Your task to perform on an android device: find photos in the google photos app Image 0: 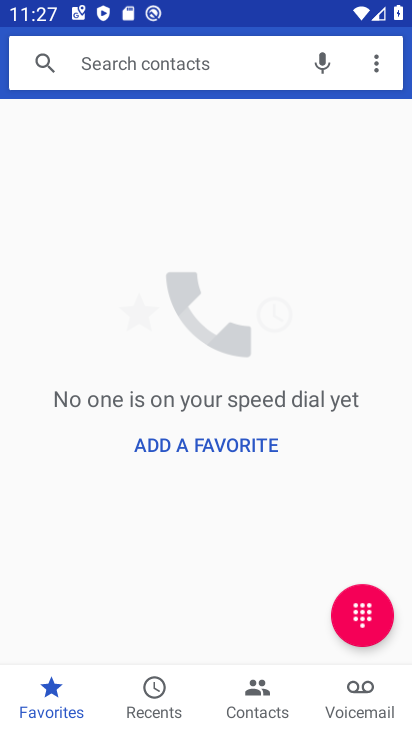
Step 0: press home button
Your task to perform on an android device: find photos in the google photos app Image 1: 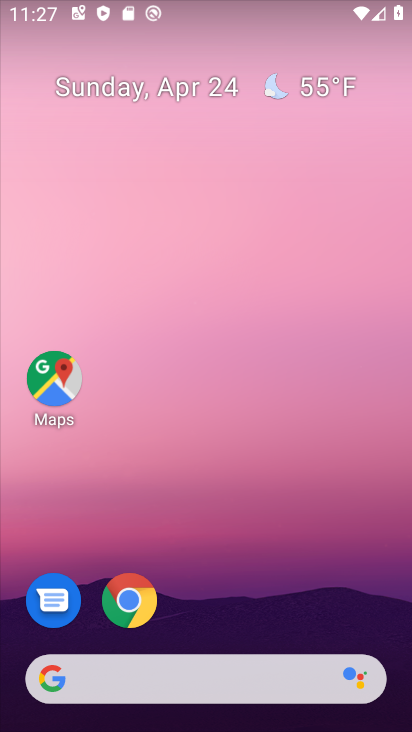
Step 1: drag from (184, 637) to (167, 205)
Your task to perform on an android device: find photos in the google photos app Image 2: 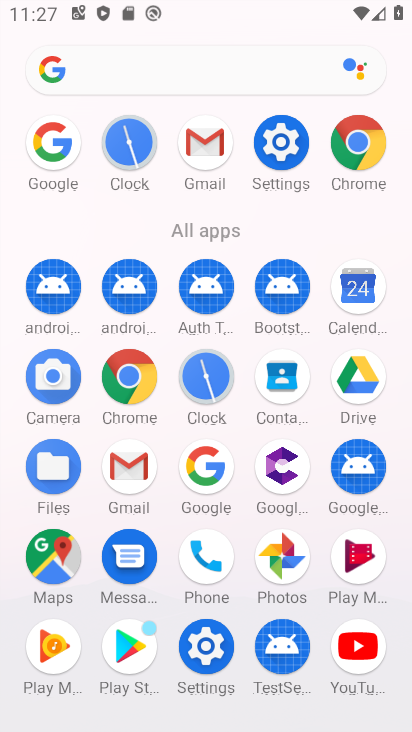
Step 2: click (276, 549)
Your task to perform on an android device: find photos in the google photos app Image 3: 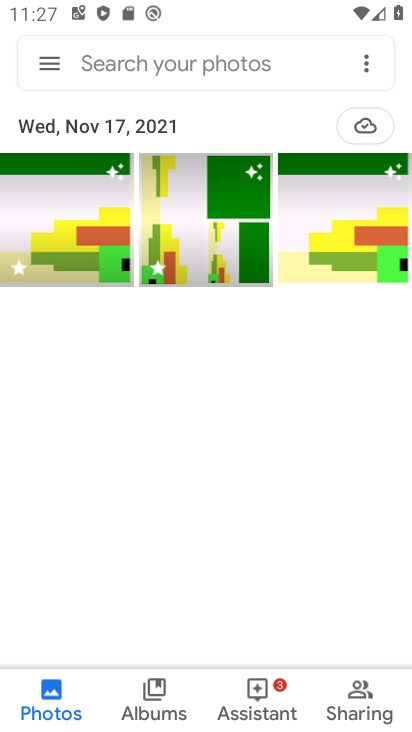
Step 3: task complete